Your task to perform on an android device: turn on the 12-hour format for clock Image 0: 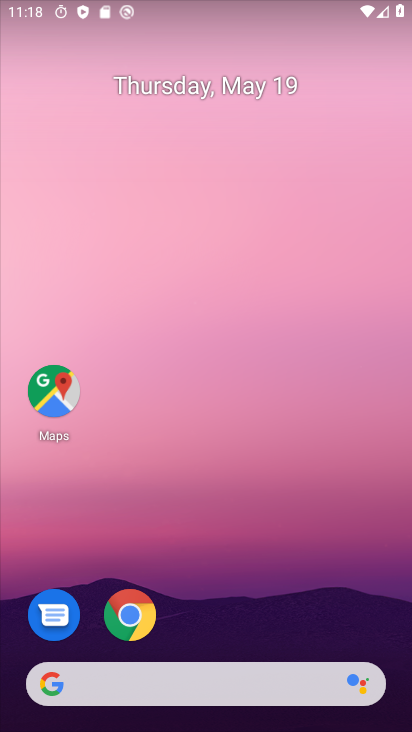
Step 0: drag from (277, 608) to (222, 2)
Your task to perform on an android device: turn on the 12-hour format for clock Image 1: 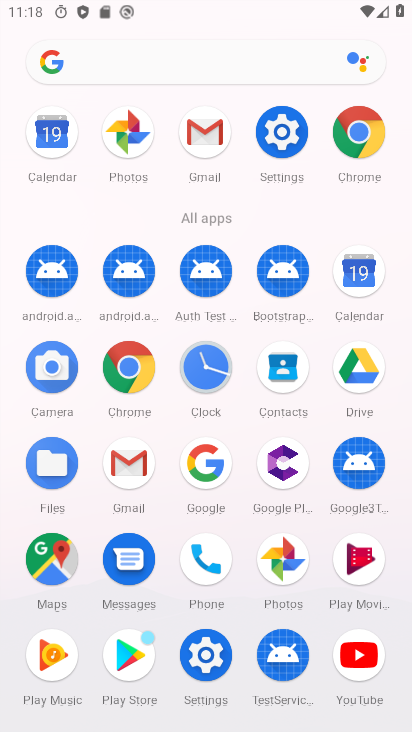
Step 1: click (204, 377)
Your task to perform on an android device: turn on the 12-hour format for clock Image 2: 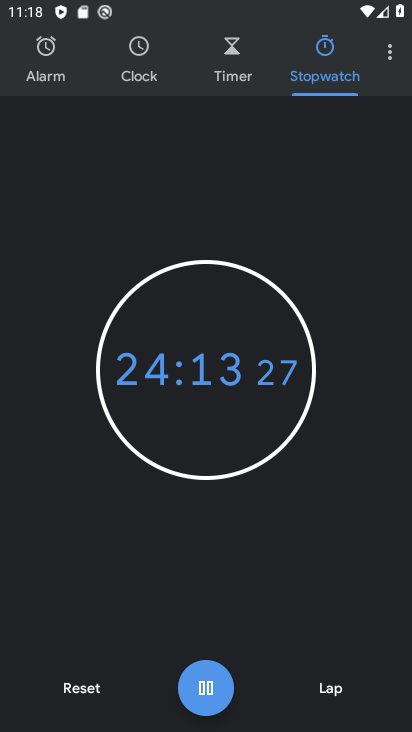
Step 2: click (388, 65)
Your task to perform on an android device: turn on the 12-hour format for clock Image 3: 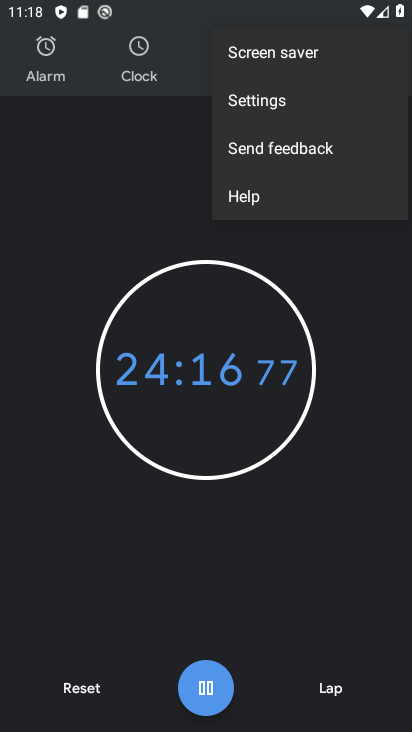
Step 3: click (285, 102)
Your task to perform on an android device: turn on the 12-hour format for clock Image 4: 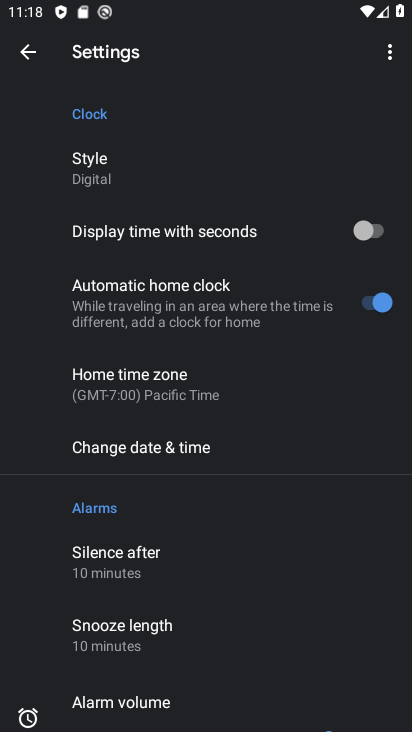
Step 4: drag from (262, 691) to (192, 289)
Your task to perform on an android device: turn on the 12-hour format for clock Image 5: 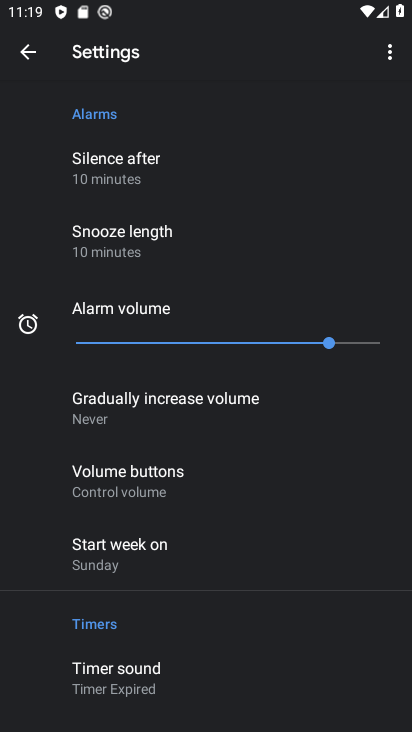
Step 5: drag from (217, 631) to (240, 731)
Your task to perform on an android device: turn on the 12-hour format for clock Image 6: 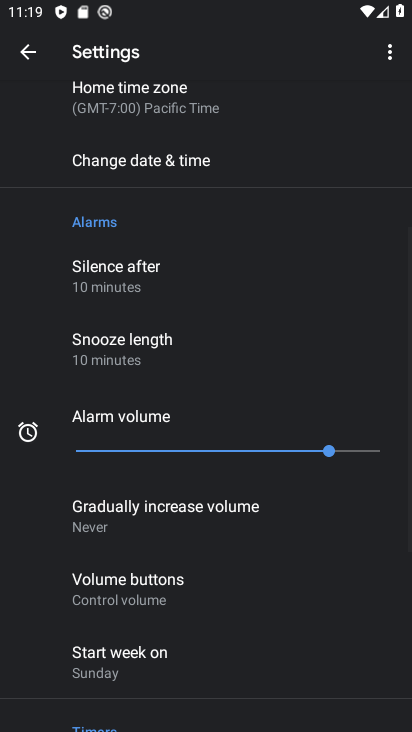
Step 6: click (178, 154)
Your task to perform on an android device: turn on the 12-hour format for clock Image 7: 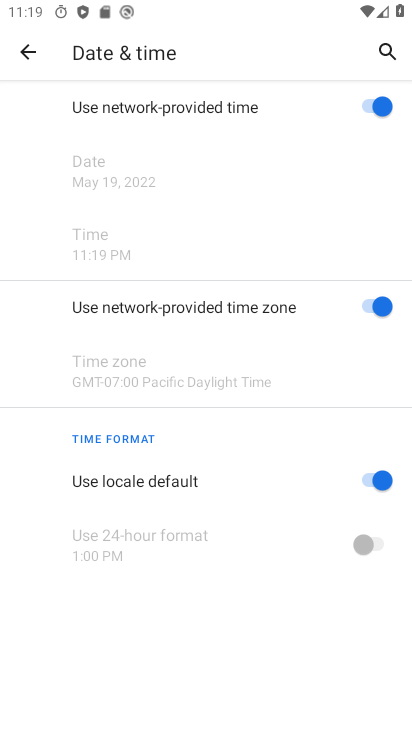
Step 7: task complete